Your task to perform on an android device: turn off data saver in the chrome app Image 0: 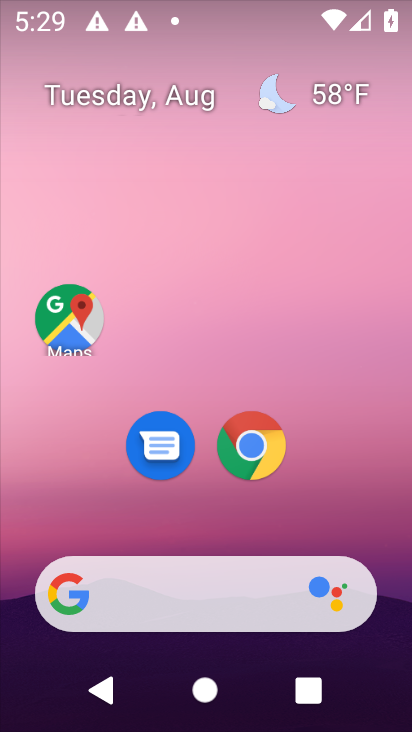
Step 0: click (249, 454)
Your task to perform on an android device: turn off data saver in the chrome app Image 1: 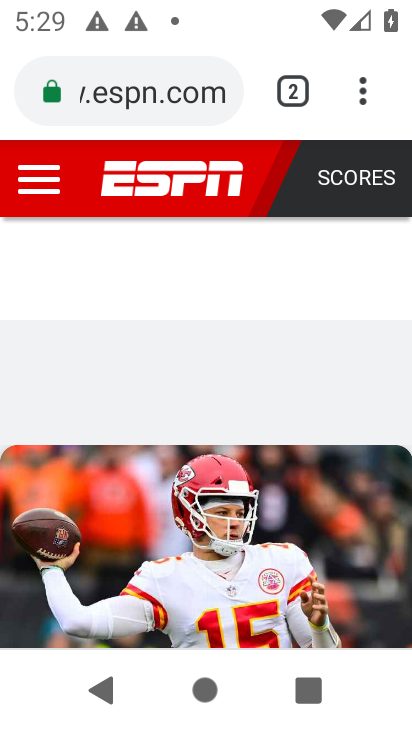
Step 1: click (361, 91)
Your task to perform on an android device: turn off data saver in the chrome app Image 2: 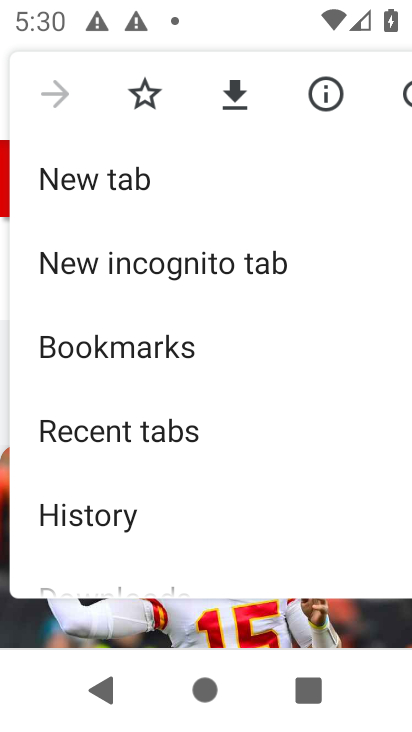
Step 2: drag from (162, 490) to (154, 286)
Your task to perform on an android device: turn off data saver in the chrome app Image 3: 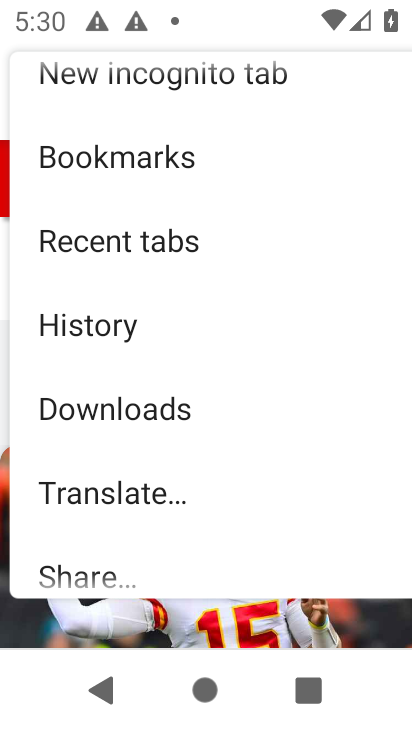
Step 3: drag from (174, 509) to (166, 307)
Your task to perform on an android device: turn off data saver in the chrome app Image 4: 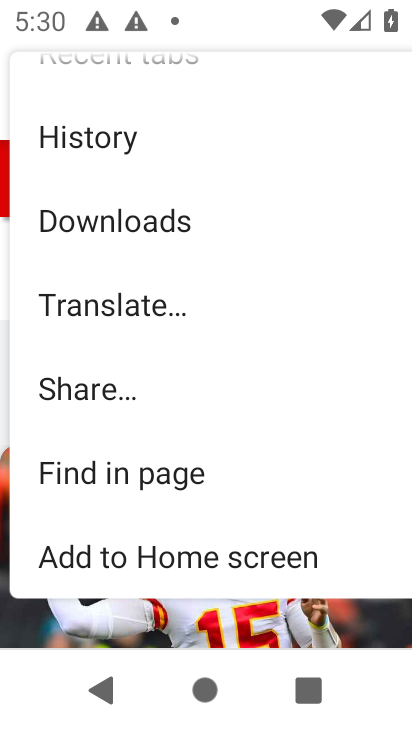
Step 4: drag from (129, 495) to (143, 265)
Your task to perform on an android device: turn off data saver in the chrome app Image 5: 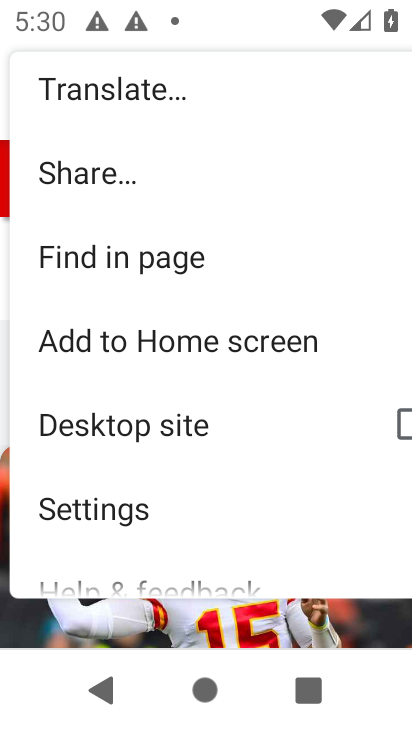
Step 5: click (97, 511)
Your task to perform on an android device: turn off data saver in the chrome app Image 6: 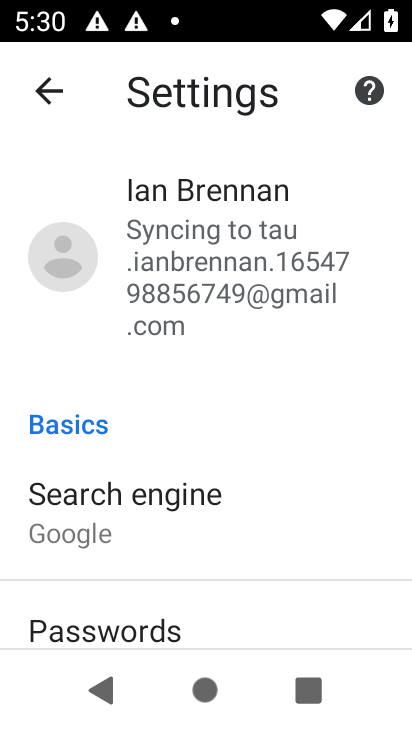
Step 6: drag from (139, 560) to (157, 292)
Your task to perform on an android device: turn off data saver in the chrome app Image 7: 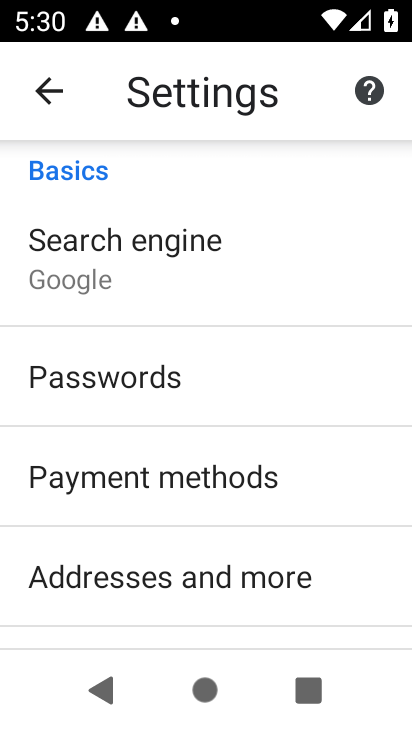
Step 7: drag from (187, 524) to (210, 378)
Your task to perform on an android device: turn off data saver in the chrome app Image 8: 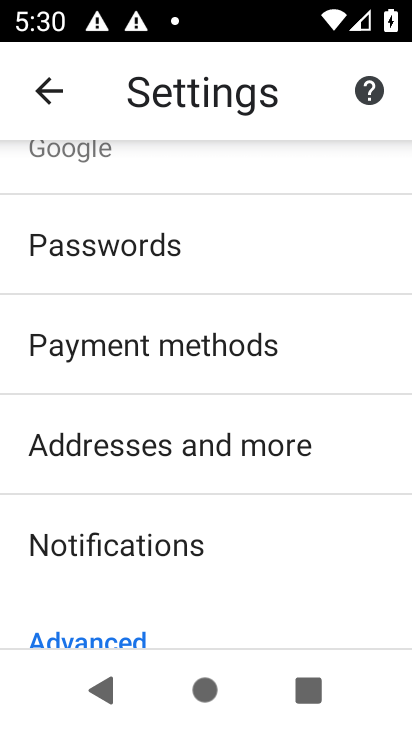
Step 8: drag from (203, 563) to (203, 425)
Your task to perform on an android device: turn off data saver in the chrome app Image 9: 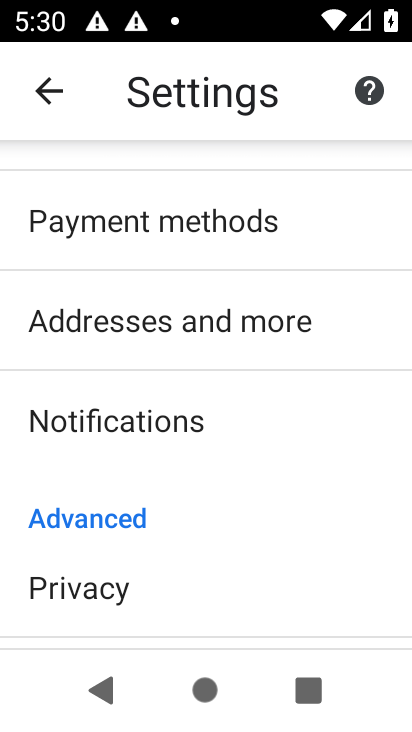
Step 9: drag from (257, 531) to (245, 256)
Your task to perform on an android device: turn off data saver in the chrome app Image 10: 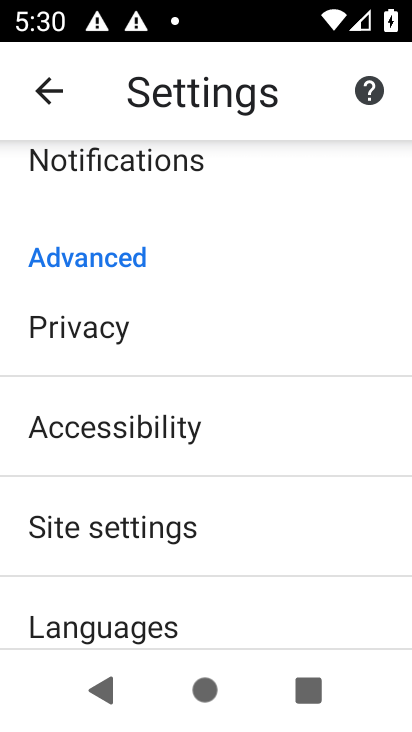
Step 10: drag from (194, 518) to (184, 202)
Your task to perform on an android device: turn off data saver in the chrome app Image 11: 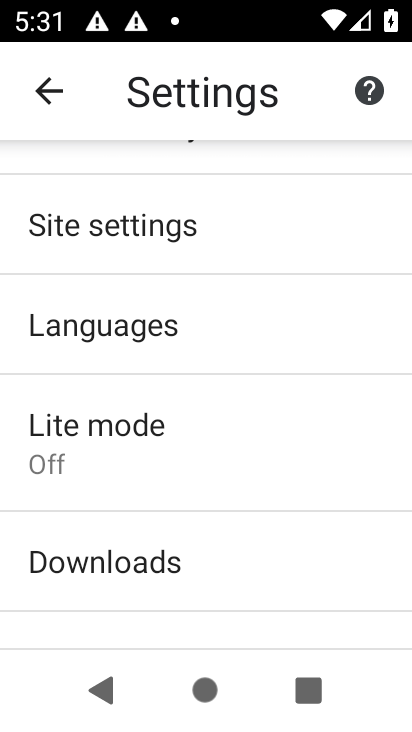
Step 11: click (110, 440)
Your task to perform on an android device: turn off data saver in the chrome app Image 12: 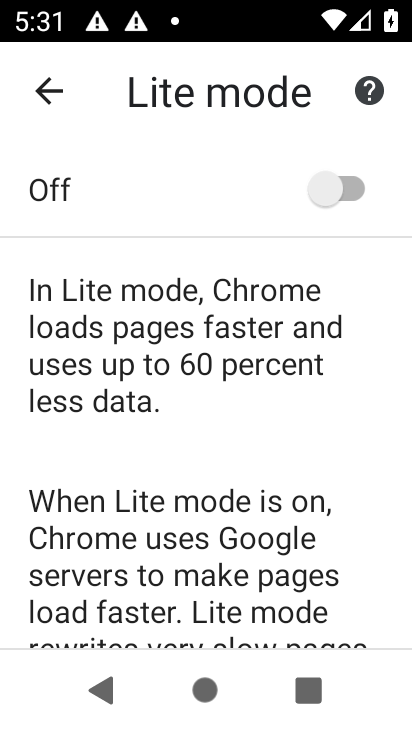
Step 12: task complete